Your task to perform on an android device: Open battery settings Image 0: 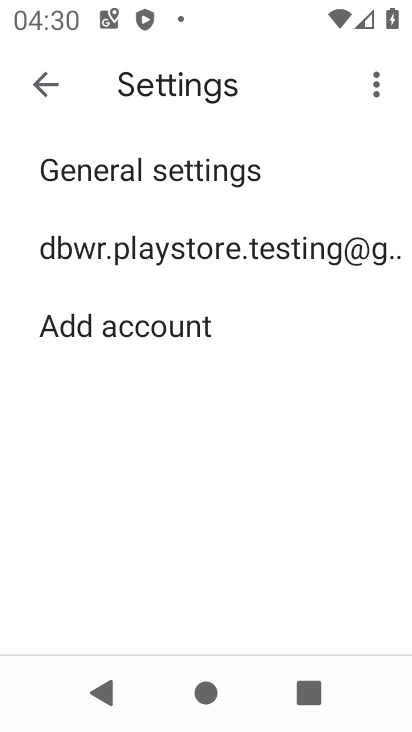
Step 0: press home button
Your task to perform on an android device: Open battery settings Image 1: 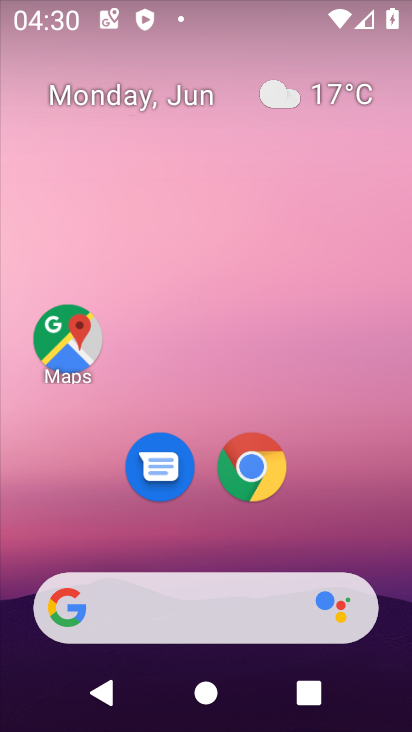
Step 1: drag from (232, 524) to (233, 165)
Your task to perform on an android device: Open battery settings Image 2: 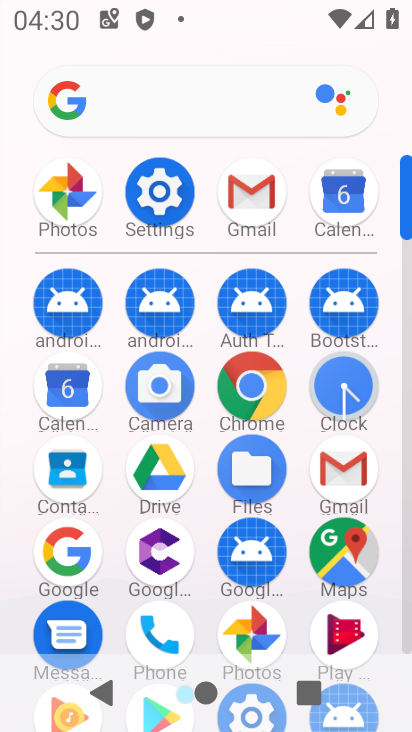
Step 2: click (146, 192)
Your task to perform on an android device: Open battery settings Image 3: 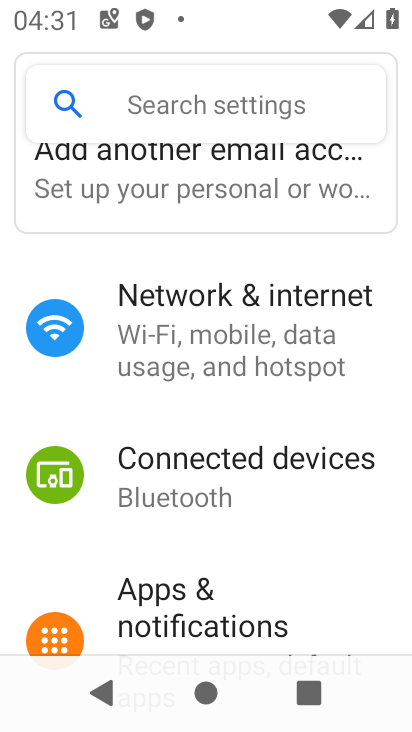
Step 3: drag from (248, 591) to (280, 333)
Your task to perform on an android device: Open battery settings Image 4: 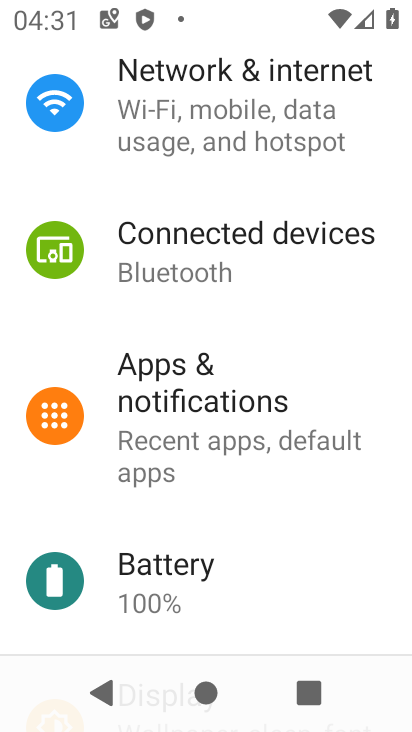
Step 4: click (154, 573)
Your task to perform on an android device: Open battery settings Image 5: 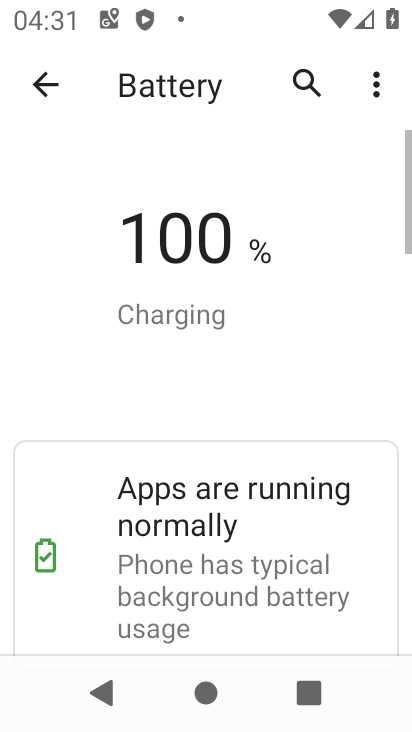
Step 5: task complete